Your task to perform on an android device: change the clock display to digital Image 0: 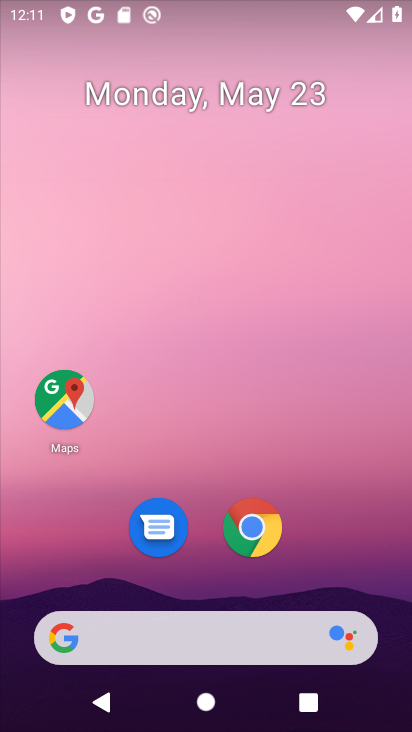
Step 0: drag from (300, 705) to (280, 123)
Your task to perform on an android device: change the clock display to digital Image 1: 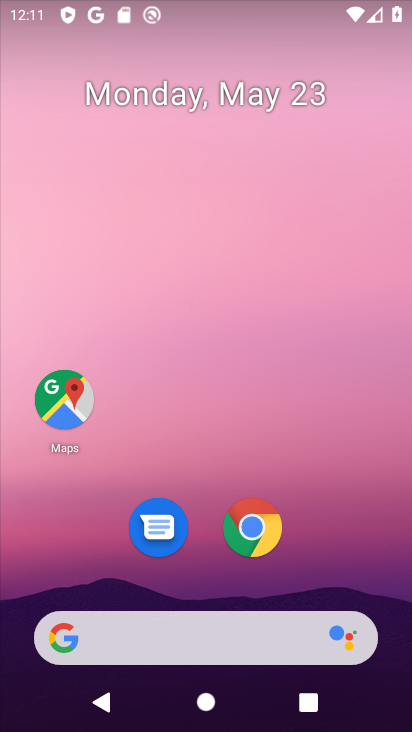
Step 1: drag from (266, 629) to (266, 180)
Your task to perform on an android device: change the clock display to digital Image 2: 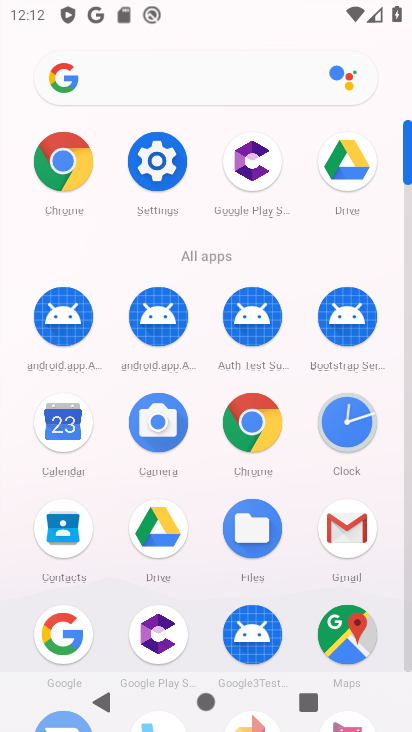
Step 2: click (362, 418)
Your task to perform on an android device: change the clock display to digital Image 3: 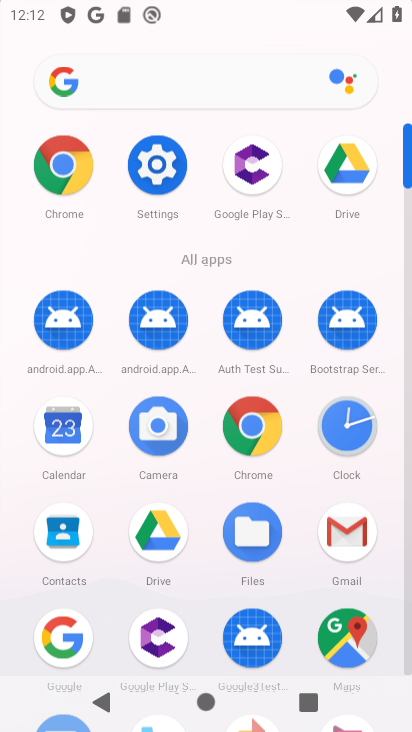
Step 3: click (352, 432)
Your task to perform on an android device: change the clock display to digital Image 4: 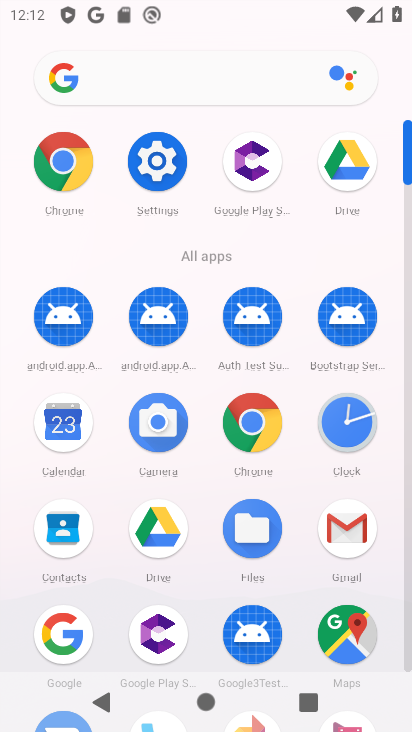
Step 4: click (352, 428)
Your task to perform on an android device: change the clock display to digital Image 5: 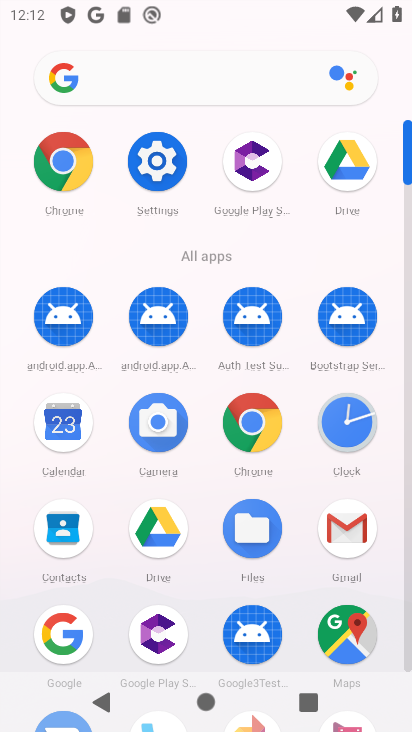
Step 5: click (354, 427)
Your task to perform on an android device: change the clock display to digital Image 6: 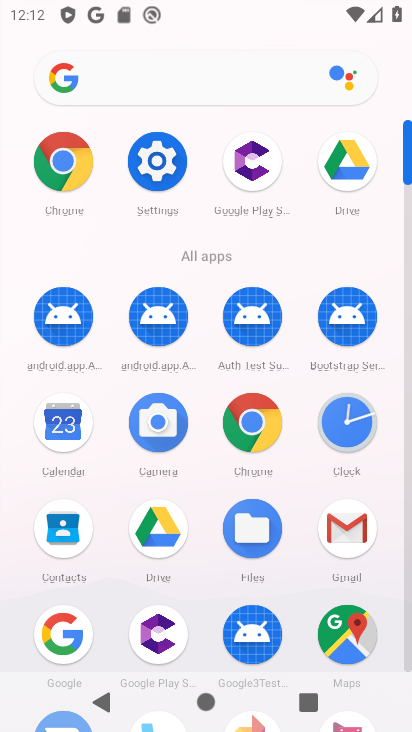
Step 6: click (354, 427)
Your task to perform on an android device: change the clock display to digital Image 7: 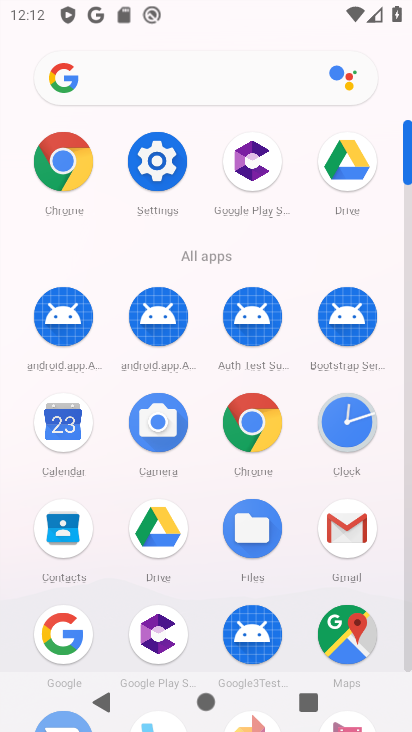
Step 7: click (354, 427)
Your task to perform on an android device: change the clock display to digital Image 8: 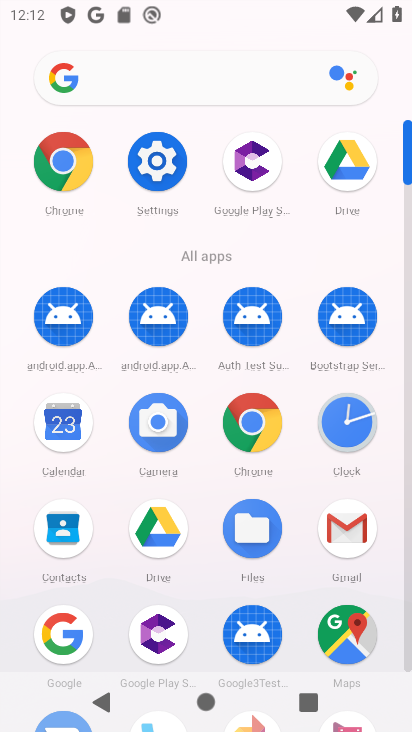
Step 8: click (354, 427)
Your task to perform on an android device: change the clock display to digital Image 9: 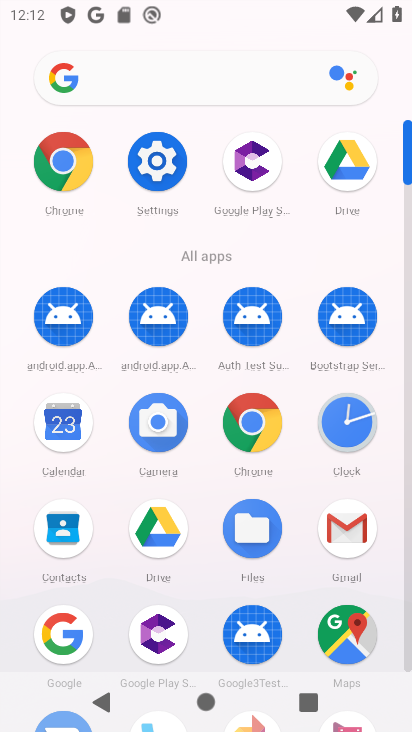
Step 9: click (354, 427)
Your task to perform on an android device: change the clock display to digital Image 10: 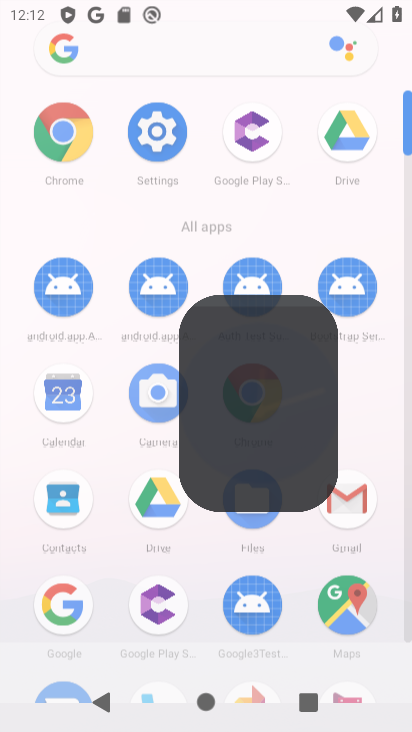
Step 10: click (330, 390)
Your task to perform on an android device: change the clock display to digital Image 11: 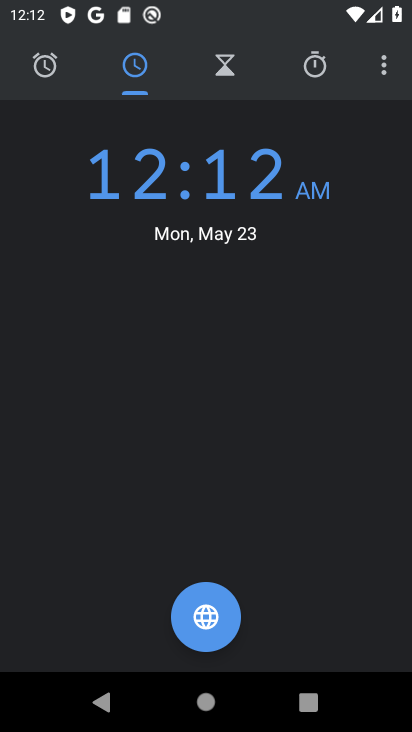
Step 11: drag from (391, 65) to (216, 141)
Your task to perform on an android device: change the clock display to digital Image 12: 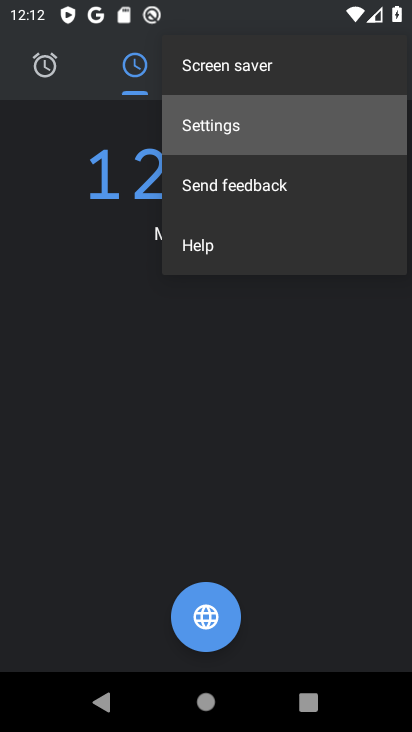
Step 12: click (216, 139)
Your task to perform on an android device: change the clock display to digital Image 13: 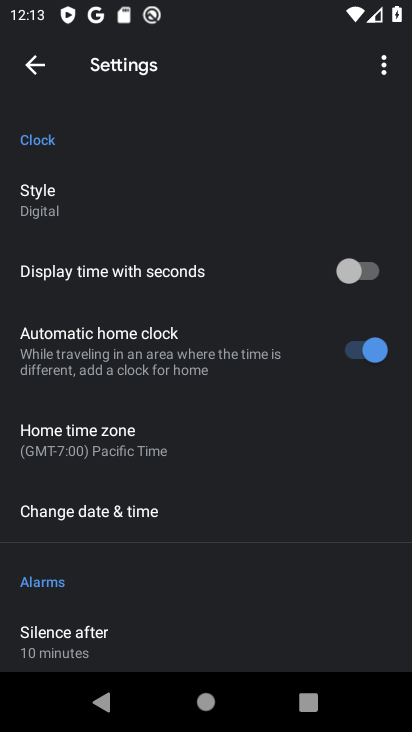
Step 13: click (351, 277)
Your task to perform on an android device: change the clock display to digital Image 14: 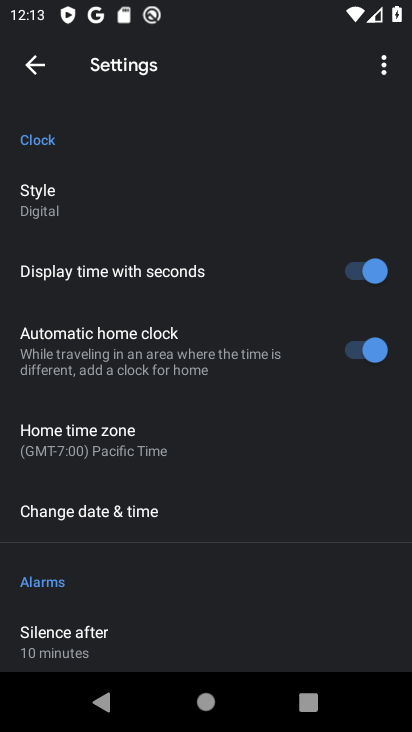
Step 14: task complete